Your task to perform on an android device: What is the recent news? Image 0: 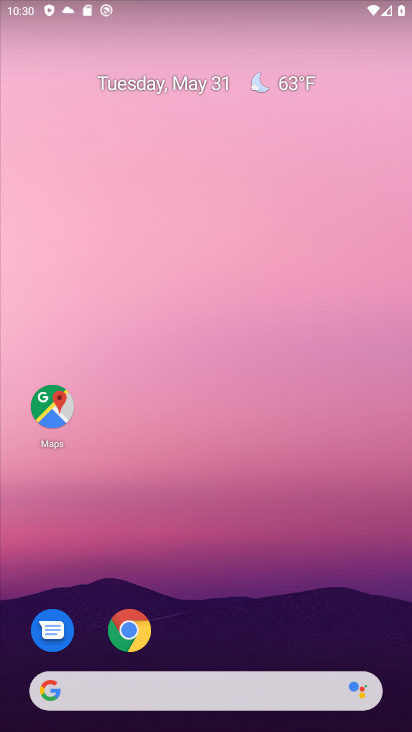
Step 0: click (211, 696)
Your task to perform on an android device: What is the recent news? Image 1: 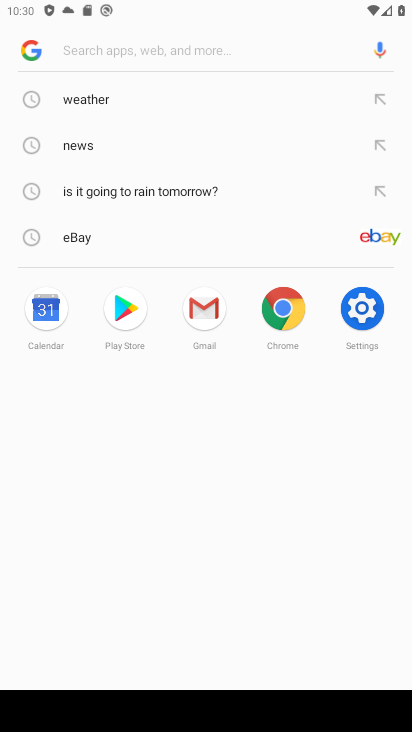
Step 1: type "recent news"
Your task to perform on an android device: What is the recent news? Image 2: 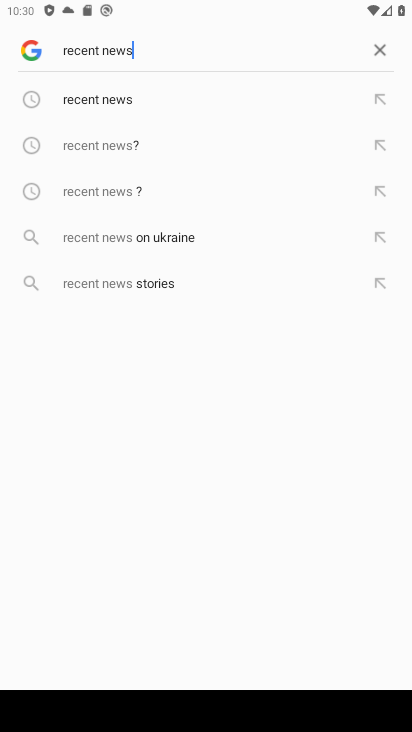
Step 2: click (83, 109)
Your task to perform on an android device: What is the recent news? Image 3: 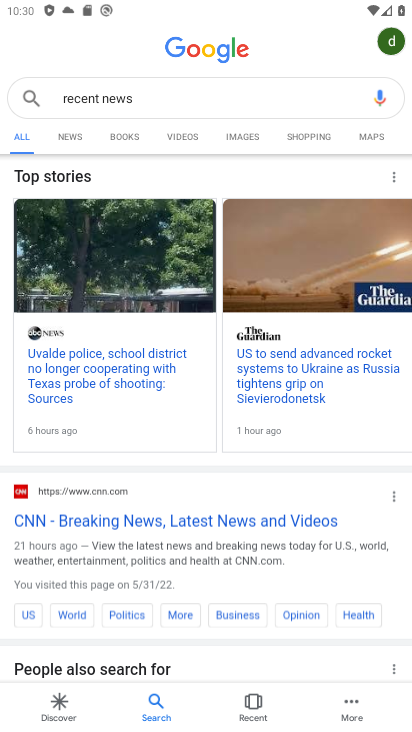
Step 3: task complete